Your task to perform on an android device: turn off wifi Image 0: 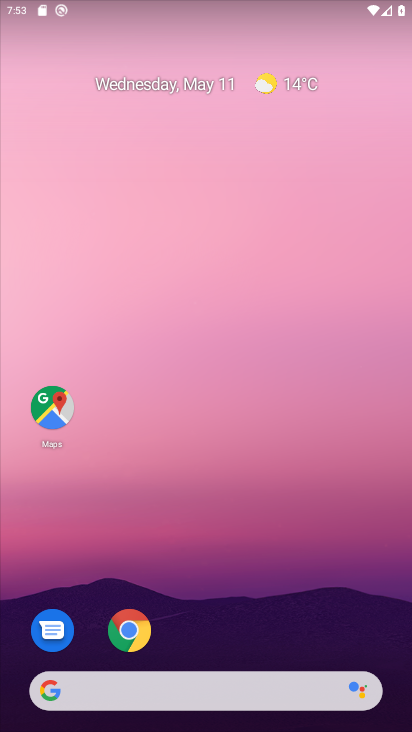
Step 0: press home button
Your task to perform on an android device: turn off wifi Image 1: 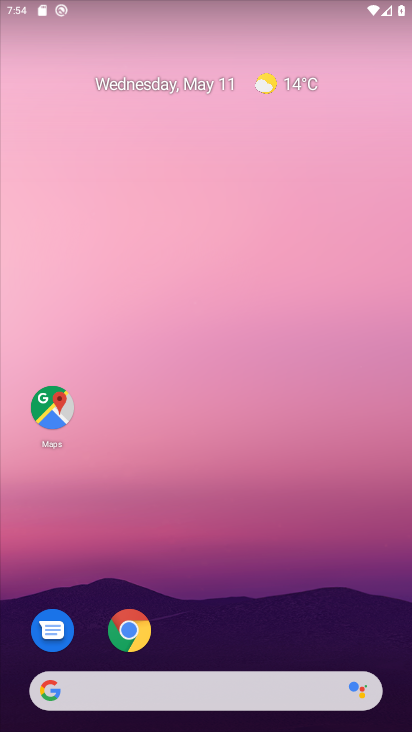
Step 1: drag from (218, 0) to (87, 537)
Your task to perform on an android device: turn off wifi Image 2: 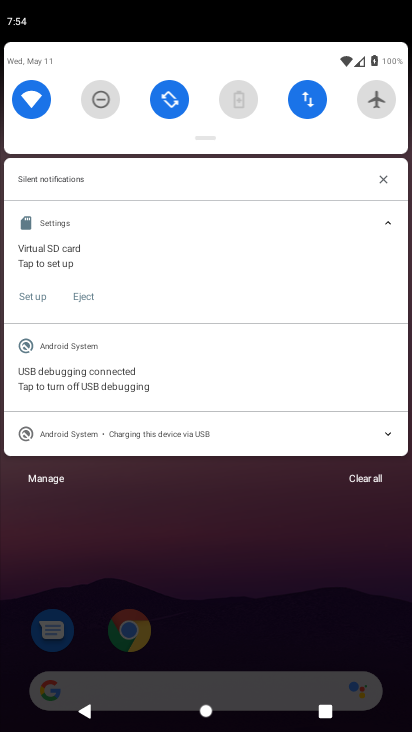
Step 2: click (24, 108)
Your task to perform on an android device: turn off wifi Image 3: 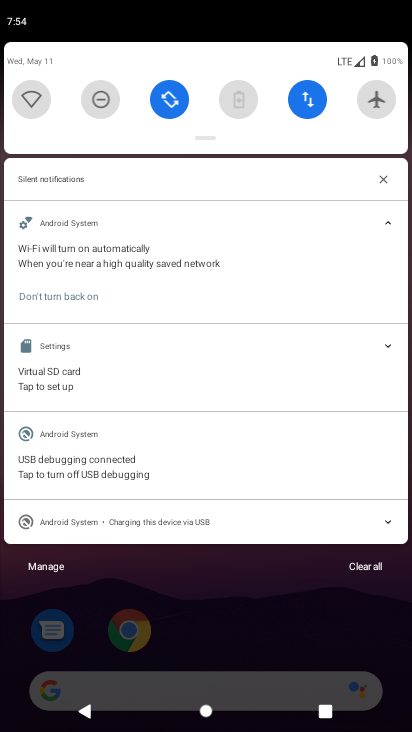
Step 3: task complete